Your task to perform on an android device: Go to network settings Image 0: 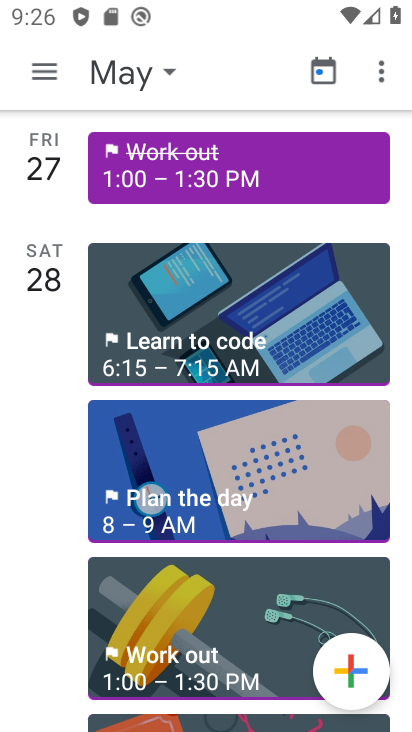
Step 0: press home button
Your task to perform on an android device: Go to network settings Image 1: 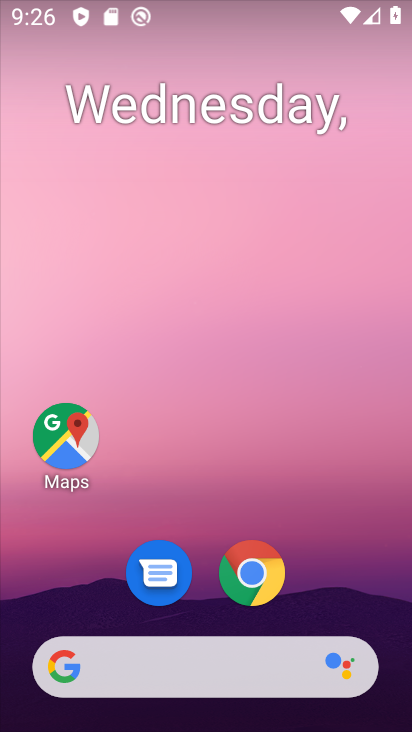
Step 1: drag from (349, 553) to (331, 208)
Your task to perform on an android device: Go to network settings Image 2: 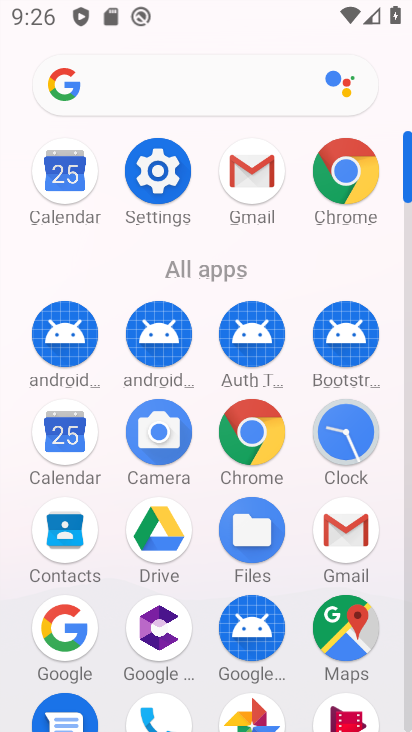
Step 2: click (158, 164)
Your task to perform on an android device: Go to network settings Image 3: 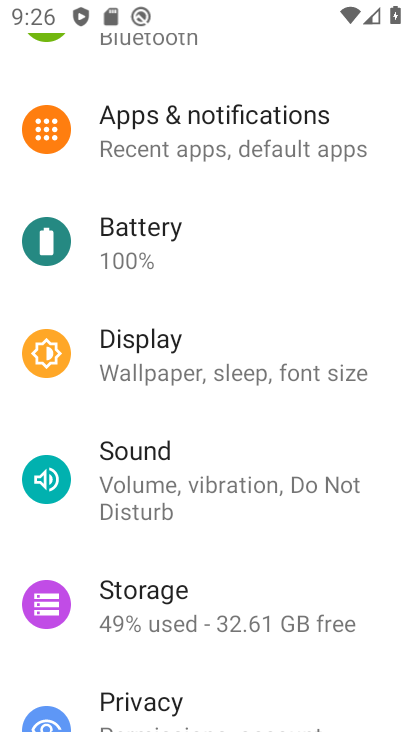
Step 3: drag from (187, 101) to (200, 420)
Your task to perform on an android device: Go to network settings Image 4: 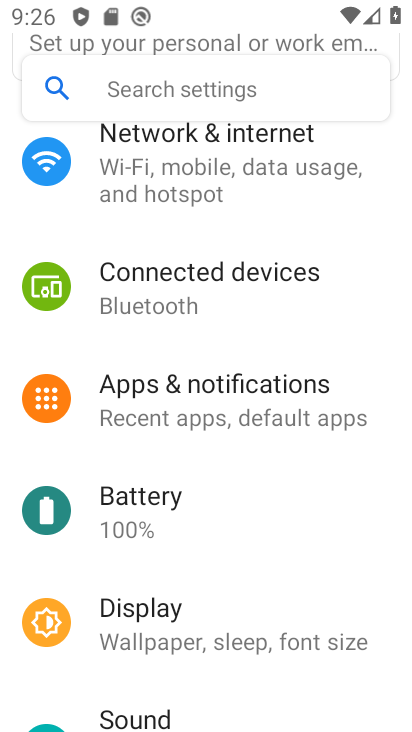
Step 4: click (183, 151)
Your task to perform on an android device: Go to network settings Image 5: 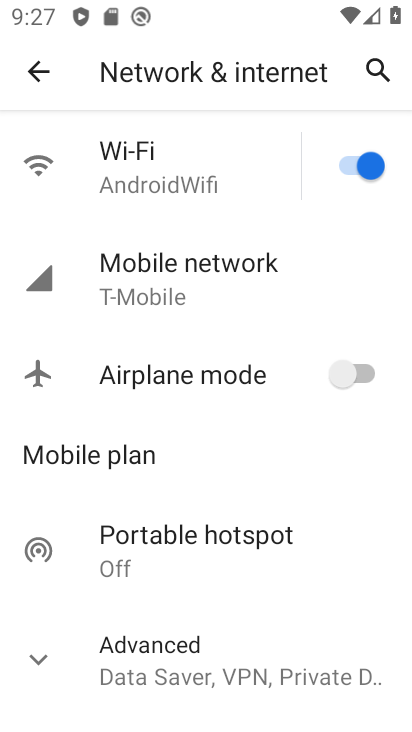
Step 5: task complete